Your task to perform on an android device: toggle notification dots Image 0: 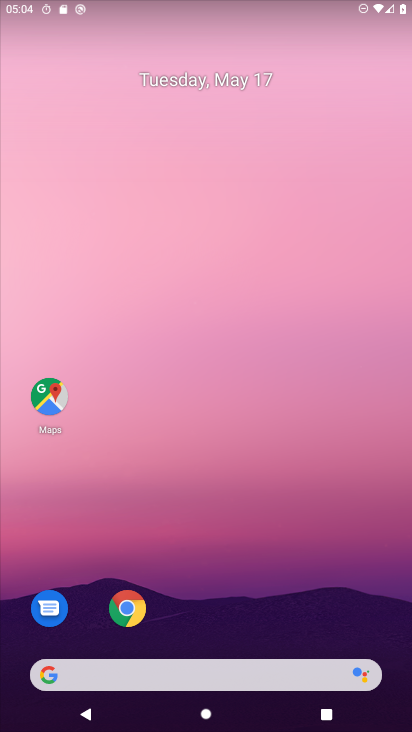
Step 0: drag from (172, 638) to (195, 277)
Your task to perform on an android device: toggle notification dots Image 1: 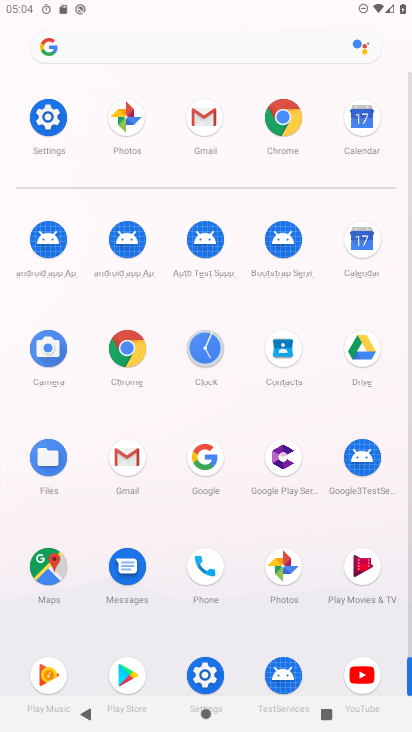
Step 1: click (43, 123)
Your task to perform on an android device: toggle notification dots Image 2: 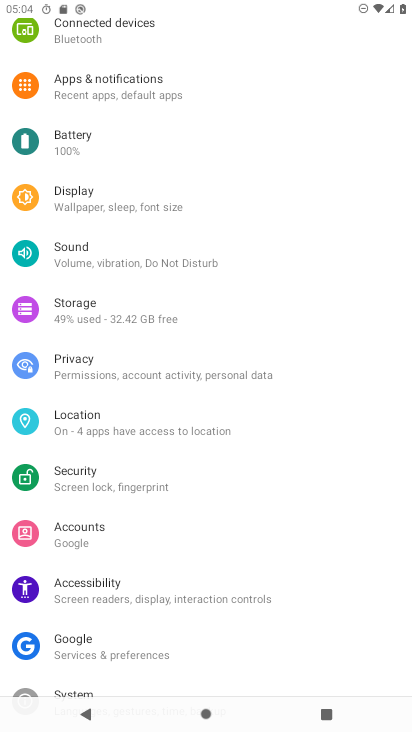
Step 2: drag from (96, 667) to (109, 368)
Your task to perform on an android device: toggle notification dots Image 3: 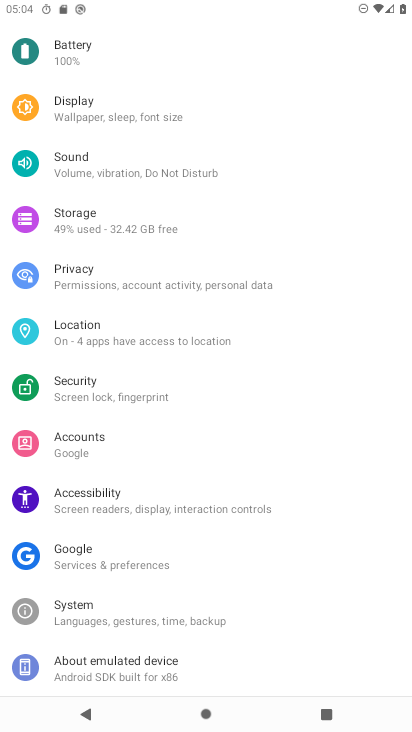
Step 3: drag from (187, 64) to (251, 493)
Your task to perform on an android device: toggle notification dots Image 4: 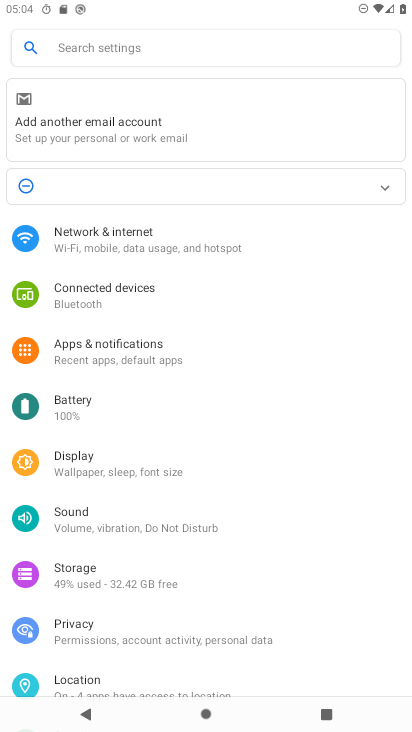
Step 4: click (114, 354)
Your task to perform on an android device: toggle notification dots Image 5: 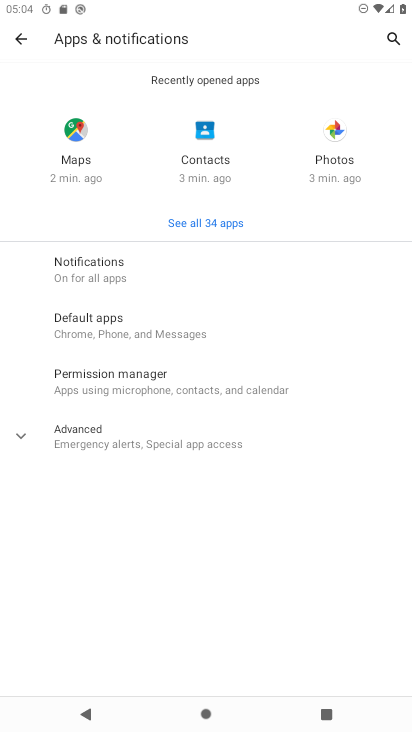
Step 5: click (119, 435)
Your task to perform on an android device: toggle notification dots Image 6: 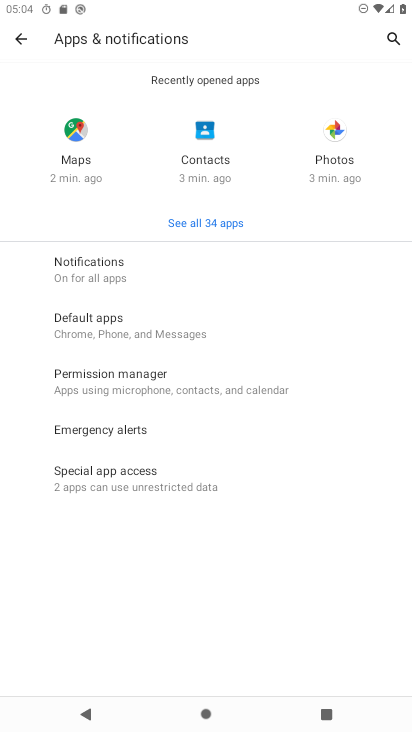
Step 6: click (83, 265)
Your task to perform on an android device: toggle notification dots Image 7: 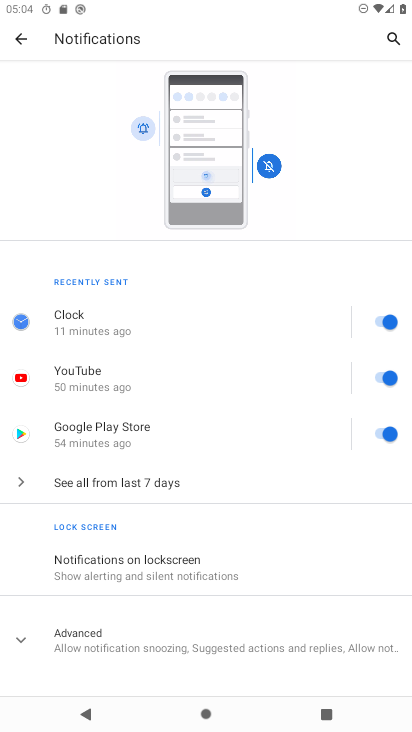
Step 7: click (119, 648)
Your task to perform on an android device: toggle notification dots Image 8: 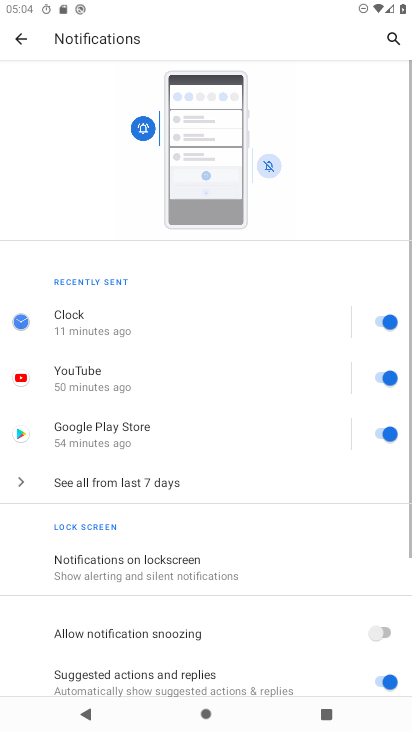
Step 8: drag from (153, 627) to (157, 370)
Your task to perform on an android device: toggle notification dots Image 9: 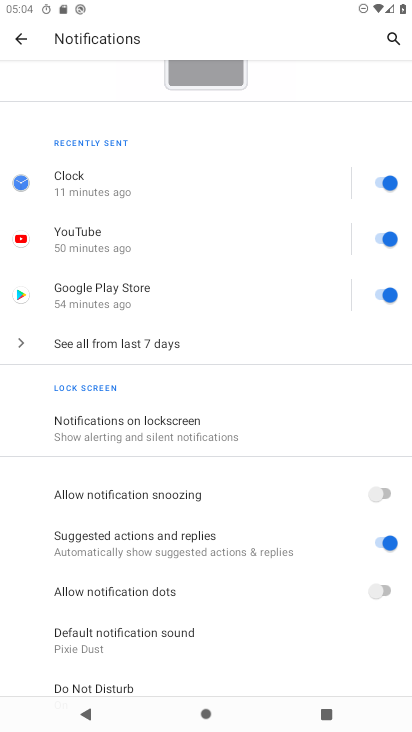
Step 9: click (383, 588)
Your task to perform on an android device: toggle notification dots Image 10: 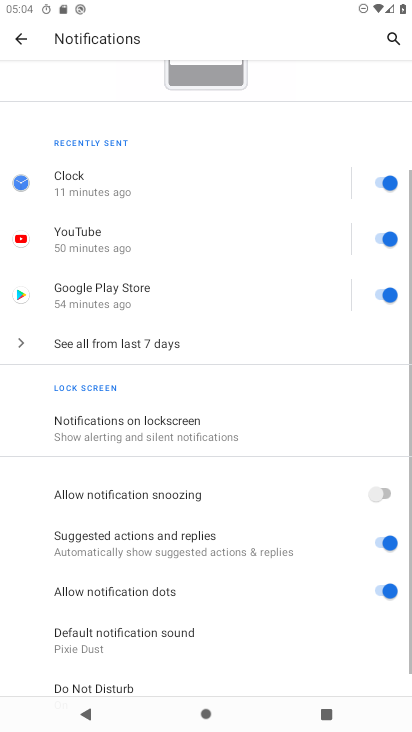
Step 10: task complete